Your task to perform on an android device: open device folders in google photos Image 0: 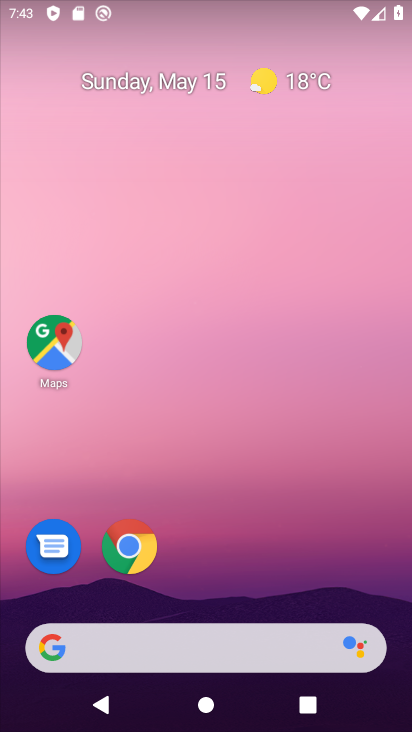
Step 0: drag from (235, 623) to (225, 202)
Your task to perform on an android device: open device folders in google photos Image 1: 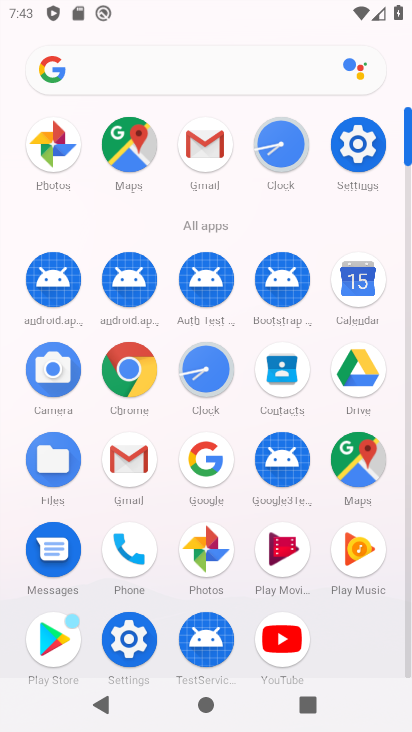
Step 1: click (212, 527)
Your task to perform on an android device: open device folders in google photos Image 2: 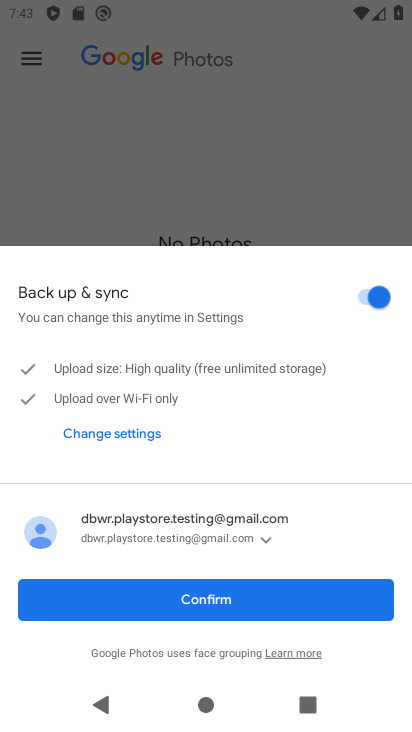
Step 2: click (198, 592)
Your task to perform on an android device: open device folders in google photos Image 3: 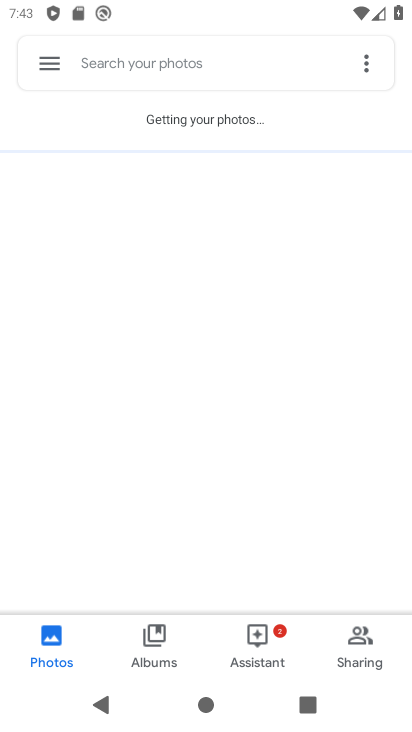
Step 3: click (165, 639)
Your task to perform on an android device: open device folders in google photos Image 4: 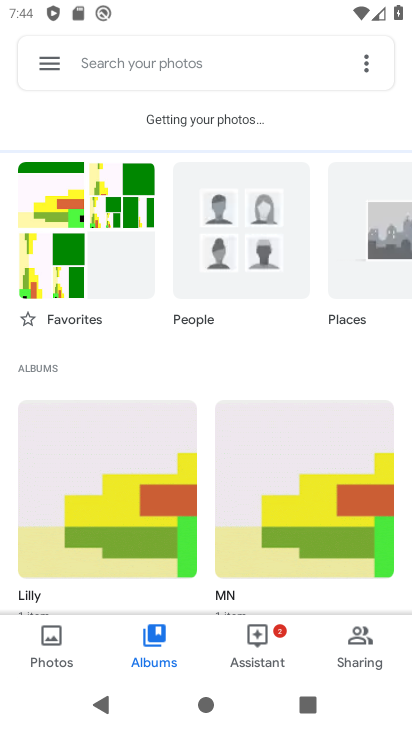
Step 4: click (92, 531)
Your task to perform on an android device: open device folders in google photos Image 5: 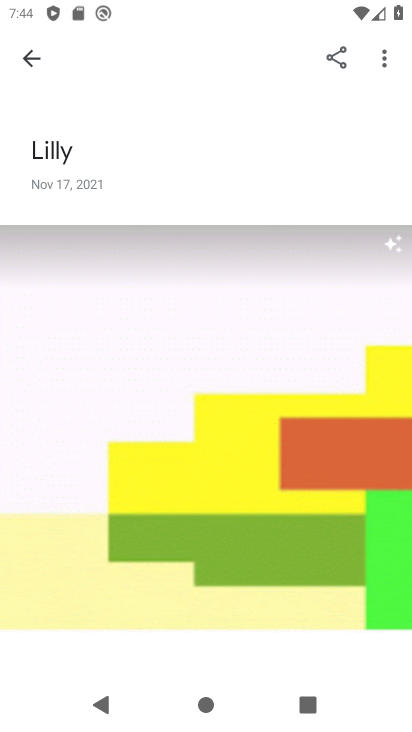
Step 5: click (26, 53)
Your task to perform on an android device: open device folders in google photos Image 6: 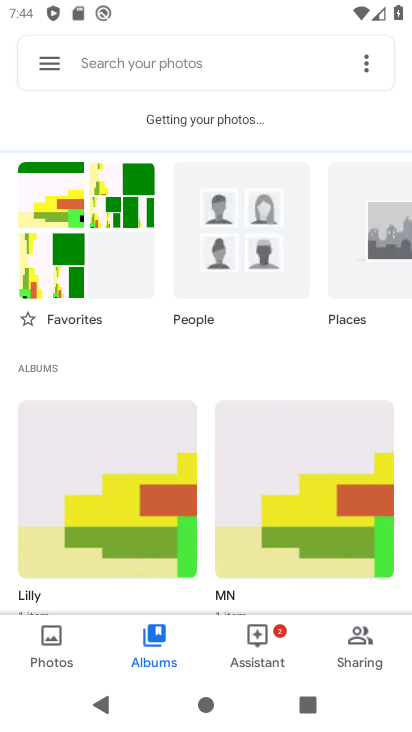
Step 6: task complete